Your task to perform on an android device: stop showing notifications on the lock screen Image 0: 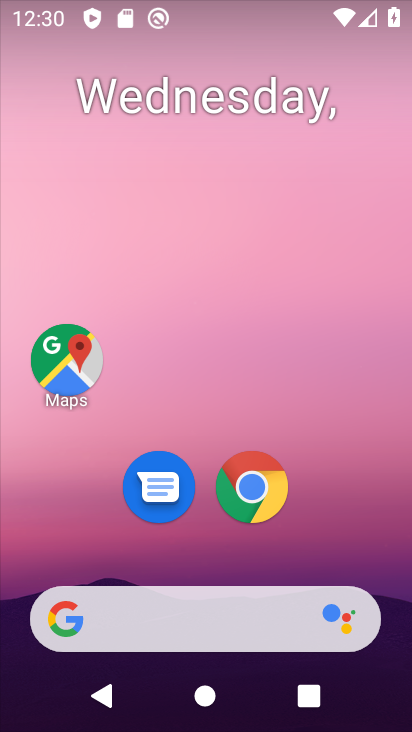
Step 0: drag from (205, 577) to (292, 0)
Your task to perform on an android device: stop showing notifications on the lock screen Image 1: 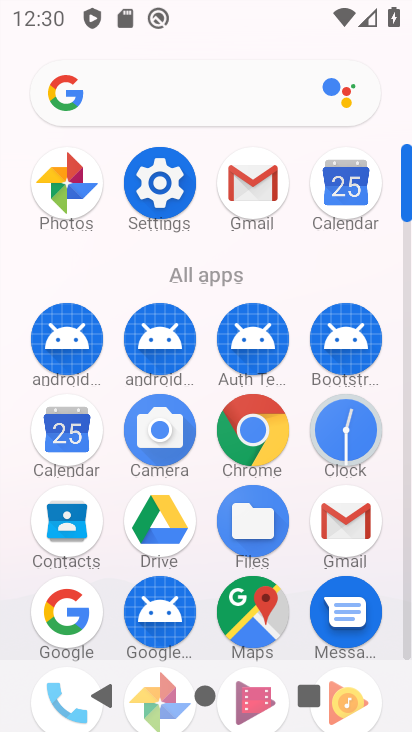
Step 1: click (161, 178)
Your task to perform on an android device: stop showing notifications on the lock screen Image 2: 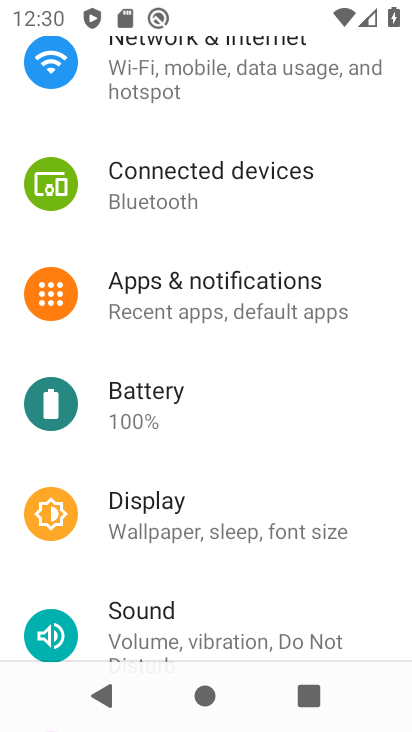
Step 2: drag from (198, 131) to (157, 538)
Your task to perform on an android device: stop showing notifications on the lock screen Image 3: 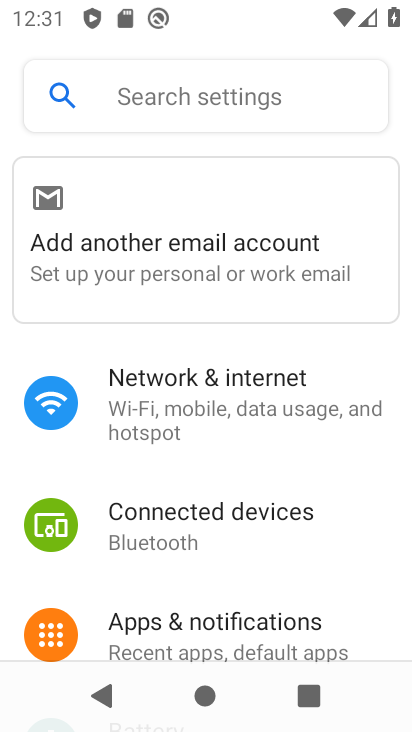
Step 3: drag from (143, 610) to (176, 406)
Your task to perform on an android device: stop showing notifications on the lock screen Image 4: 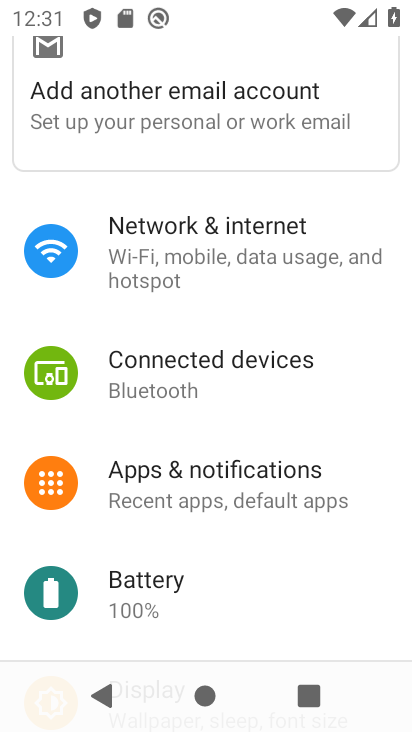
Step 4: click (155, 492)
Your task to perform on an android device: stop showing notifications on the lock screen Image 5: 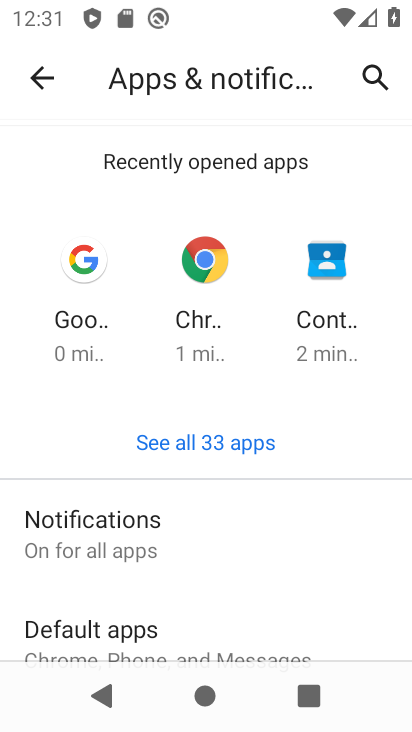
Step 5: drag from (129, 633) to (219, 334)
Your task to perform on an android device: stop showing notifications on the lock screen Image 6: 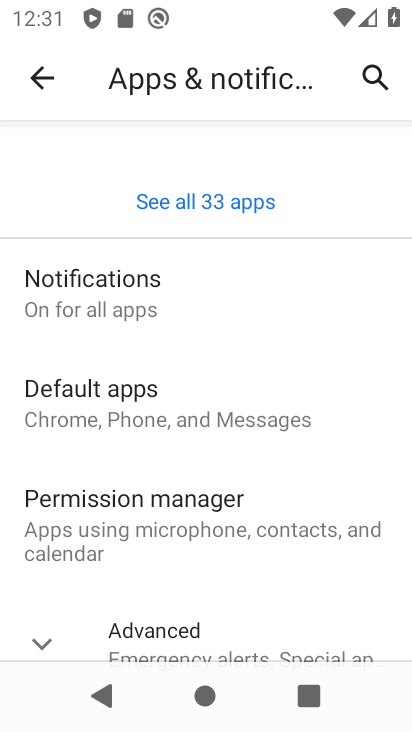
Step 6: click (118, 294)
Your task to perform on an android device: stop showing notifications on the lock screen Image 7: 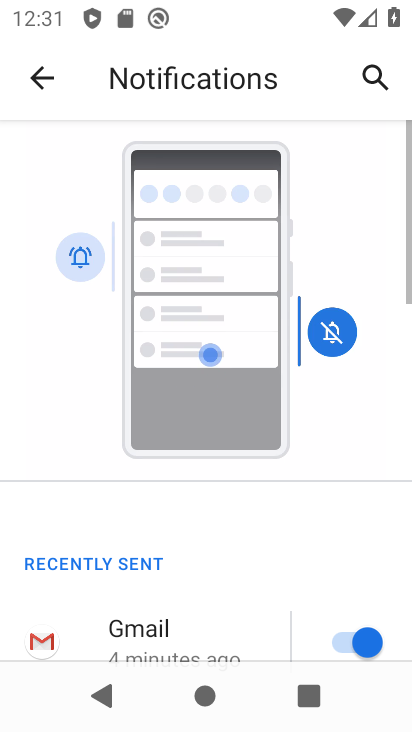
Step 7: drag from (101, 614) to (151, 254)
Your task to perform on an android device: stop showing notifications on the lock screen Image 8: 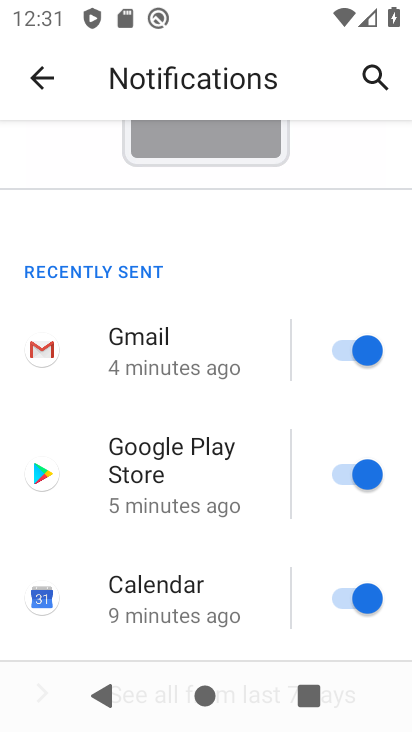
Step 8: drag from (140, 604) to (184, 260)
Your task to perform on an android device: stop showing notifications on the lock screen Image 9: 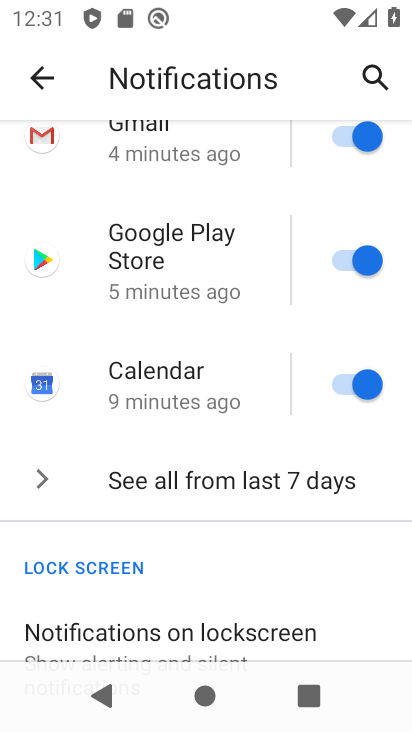
Step 9: click (125, 644)
Your task to perform on an android device: stop showing notifications on the lock screen Image 10: 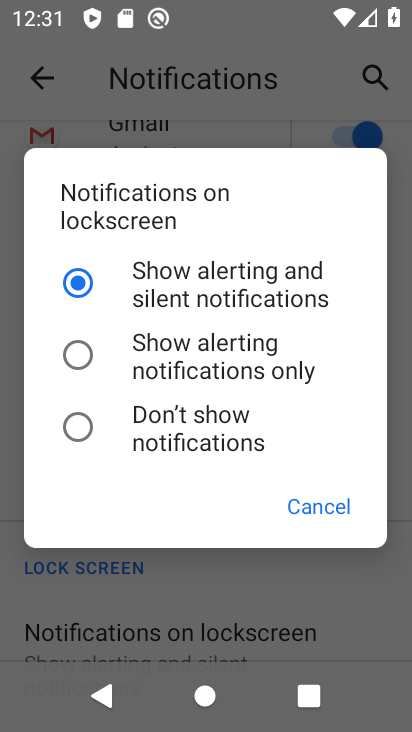
Step 10: click (81, 431)
Your task to perform on an android device: stop showing notifications on the lock screen Image 11: 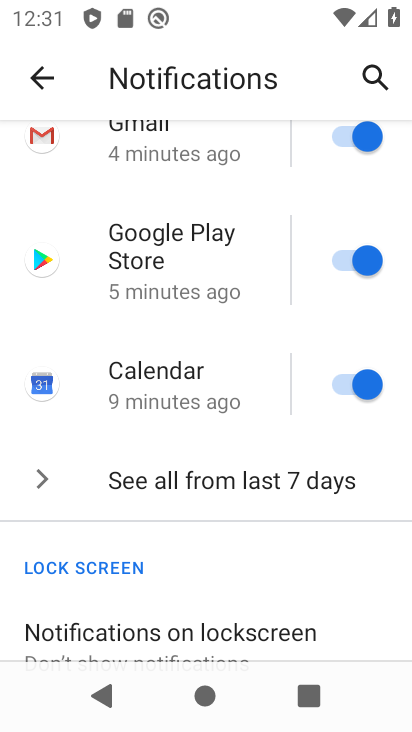
Step 11: task complete